Your task to perform on an android device: change timer sound Image 0: 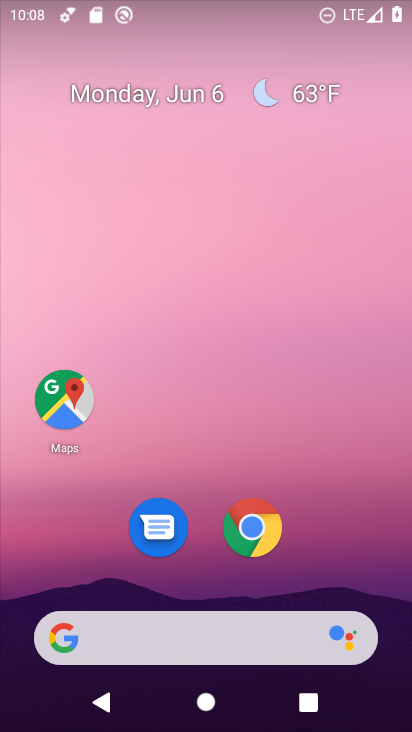
Step 0: drag from (359, 504) to (371, 146)
Your task to perform on an android device: change timer sound Image 1: 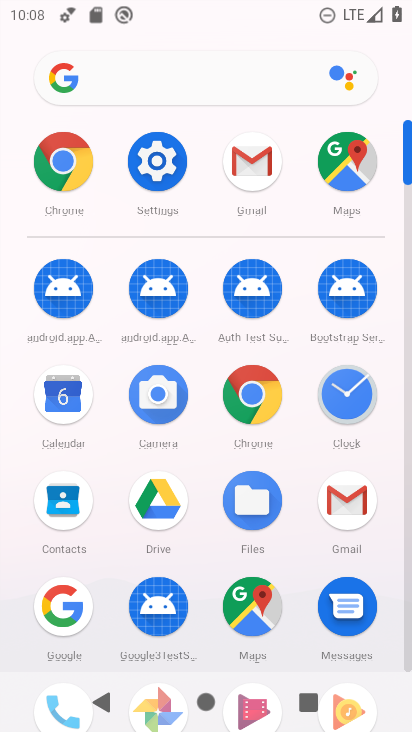
Step 1: click (356, 395)
Your task to perform on an android device: change timer sound Image 2: 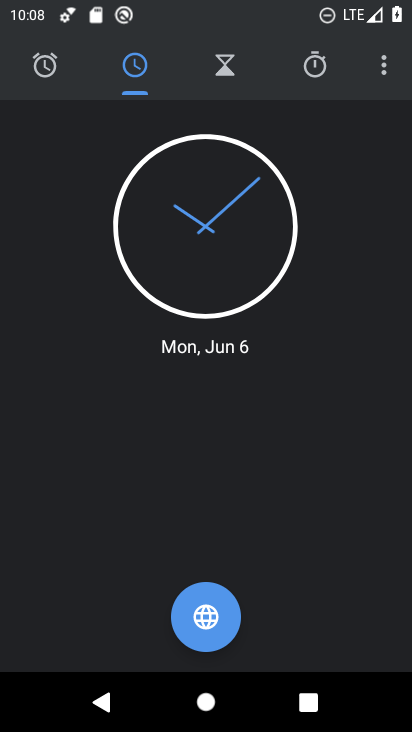
Step 2: click (384, 83)
Your task to perform on an android device: change timer sound Image 3: 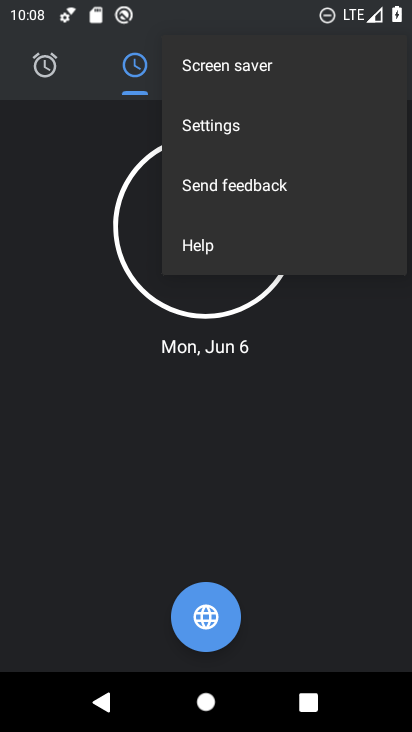
Step 3: click (256, 132)
Your task to perform on an android device: change timer sound Image 4: 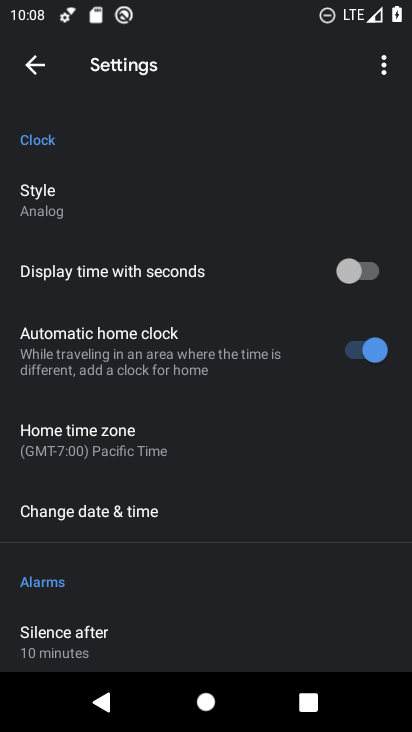
Step 4: drag from (284, 527) to (293, 414)
Your task to perform on an android device: change timer sound Image 5: 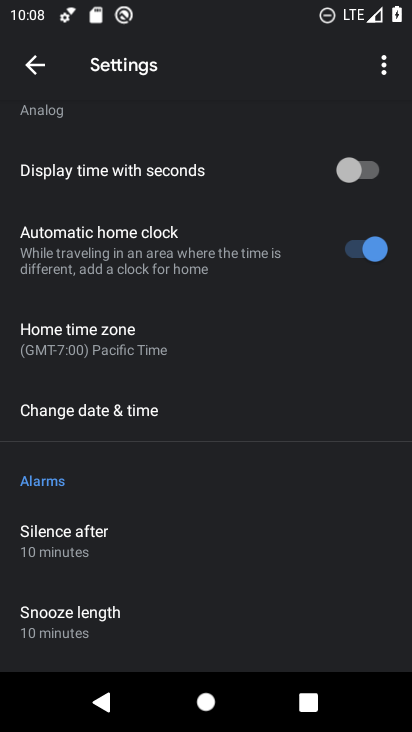
Step 5: drag from (305, 544) to (320, 403)
Your task to perform on an android device: change timer sound Image 6: 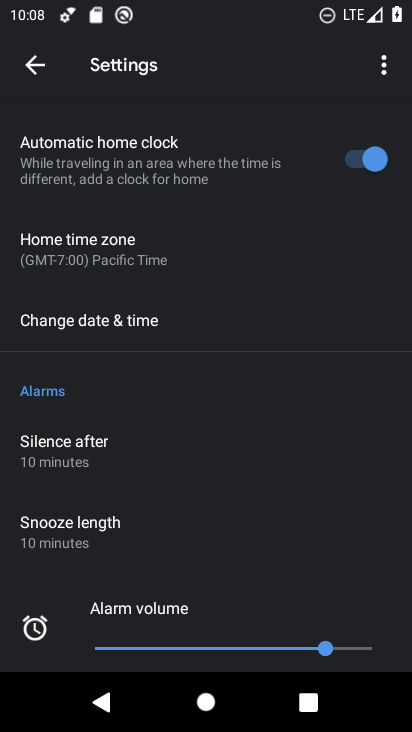
Step 6: drag from (304, 518) to (305, 397)
Your task to perform on an android device: change timer sound Image 7: 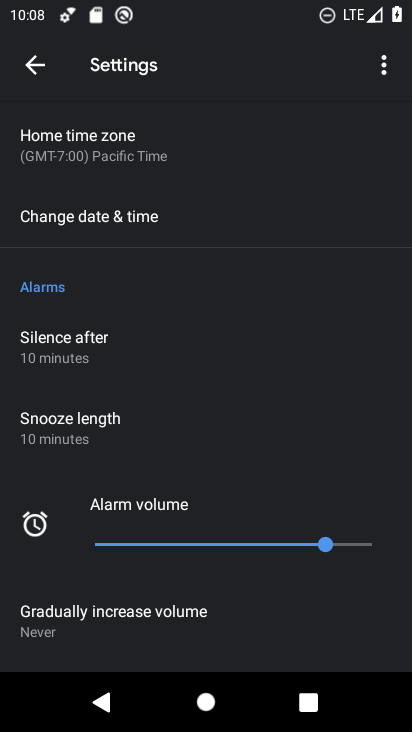
Step 7: drag from (292, 584) to (310, 459)
Your task to perform on an android device: change timer sound Image 8: 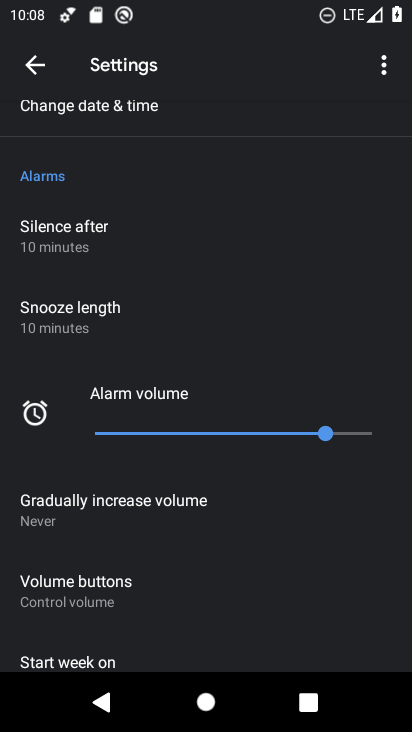
Step 8: drag from (333, 561) to (336, 406)
Your task to perform on an android device: change timer sound Image 9: 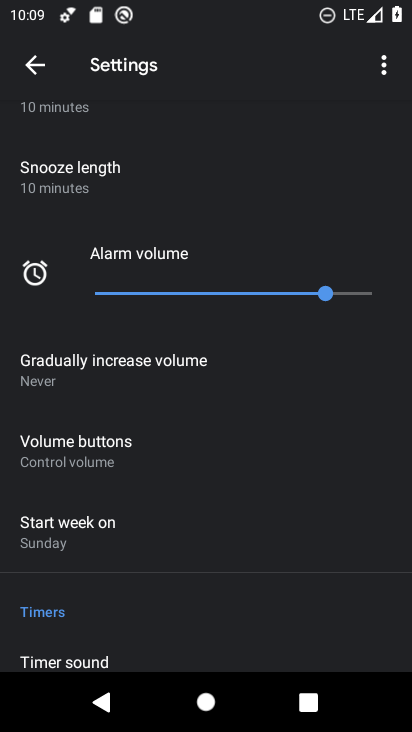
Step 9: drag from (331, 508) to (335, 415)
Your task to perform on an android device: change timer sound Image 10: 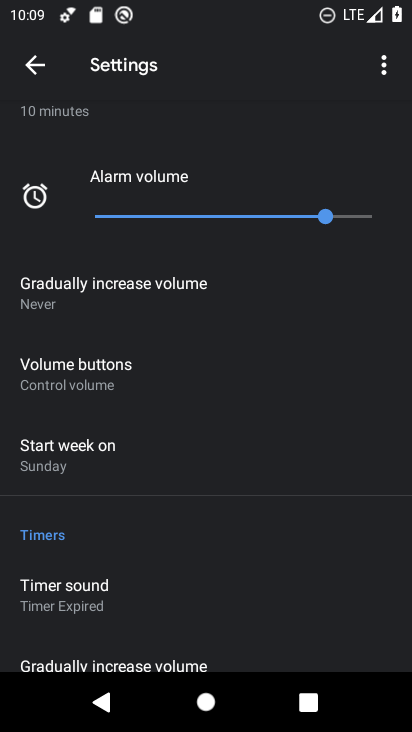
Step 10: drag from (344, 525) to (348, 405)
Your task to perform on an android device: change timer sound Image 11: 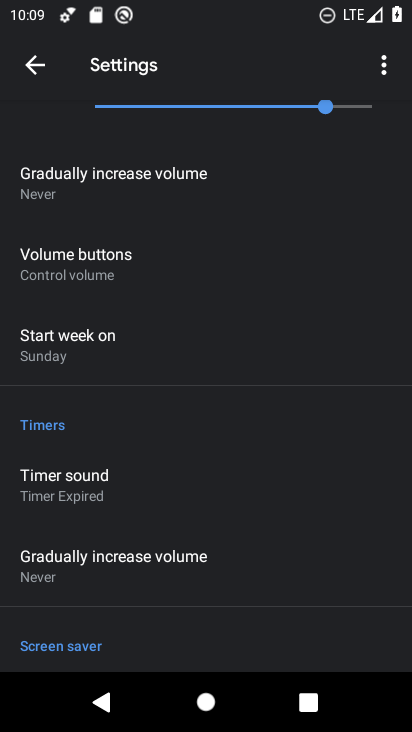
Step 11: click (139, 484)
Your task to perform on an android device: change timer sound Image 12: 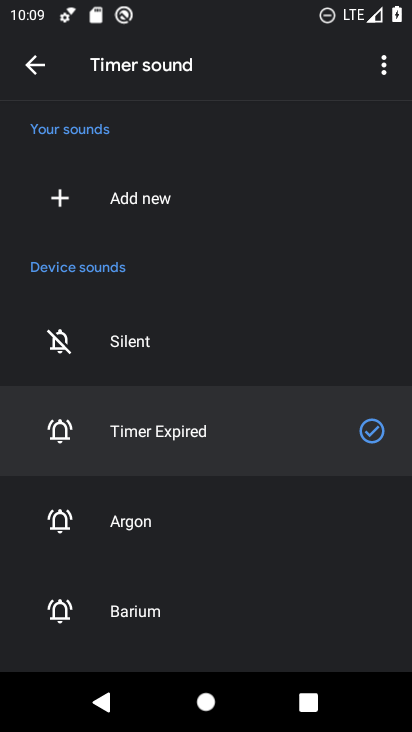
Step 12: click (183, 363)
Your task to perform on an android device: change timer sound Image 13: 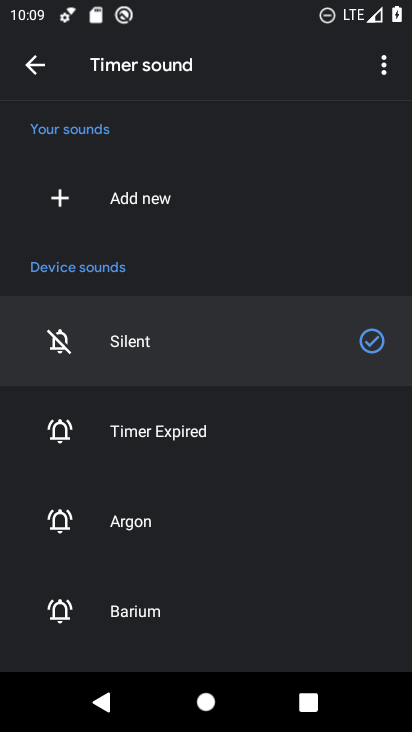
Step 13: task complete